Your task to perform on an android device: check google app version Image 0: 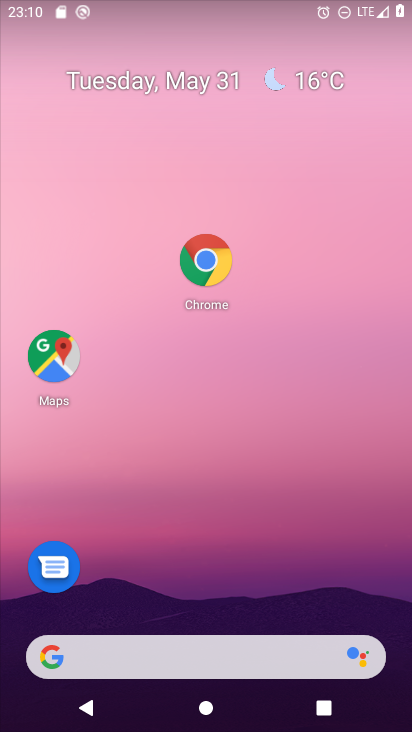
Step 0: drag from (191, 600) to (186, 269)
Your task to perform on an android device: check google app version Image 1: 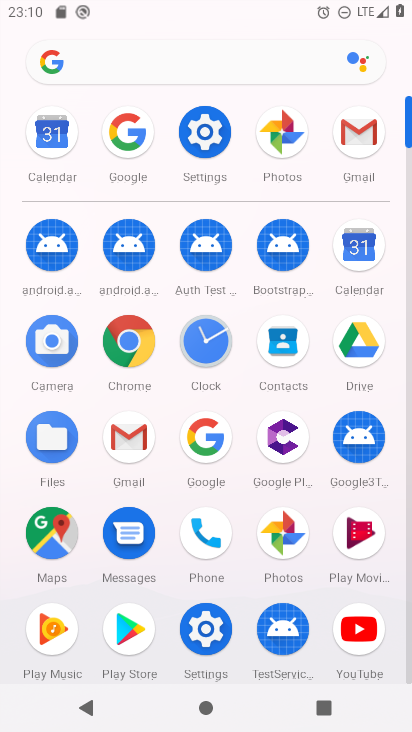
Step 1: click (199, 448)
Your task to perform on an android device: check google app version Image 2: 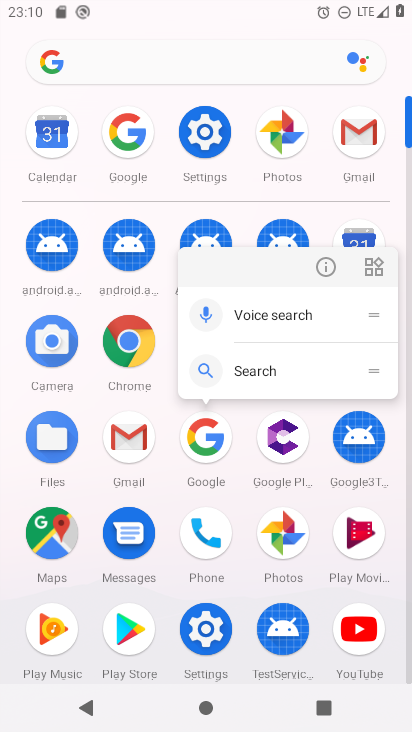
Step 2: click (332, 269)
Your task to perform on an android device: check google app version Image 3: 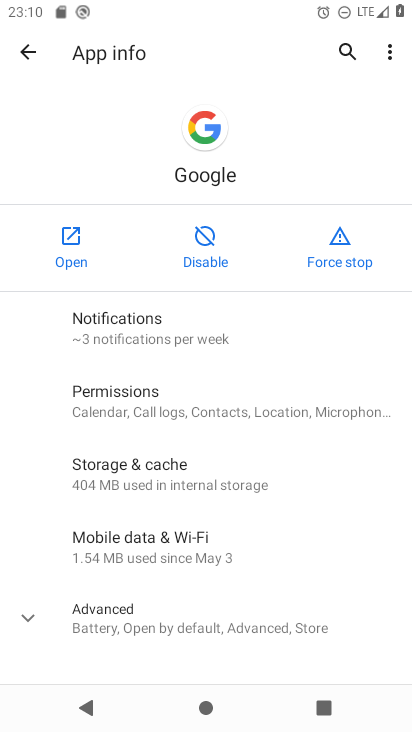
Step 3: click (167, 633)
Your task to perform on an android device: check google app version Image 4: 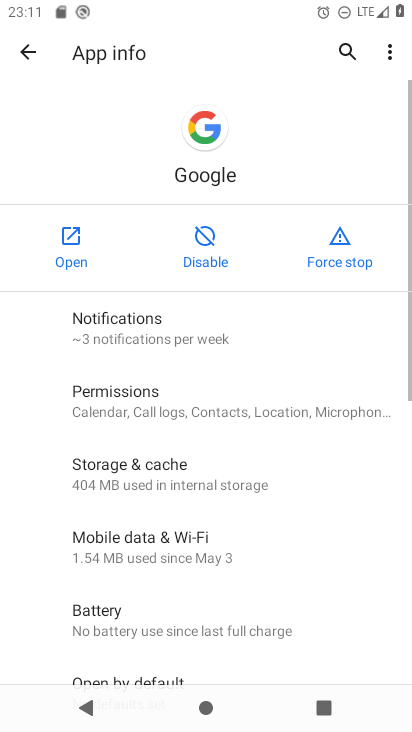
Step 4: task complete